Your task to perform on an android device: Go to battery settings Image 0: 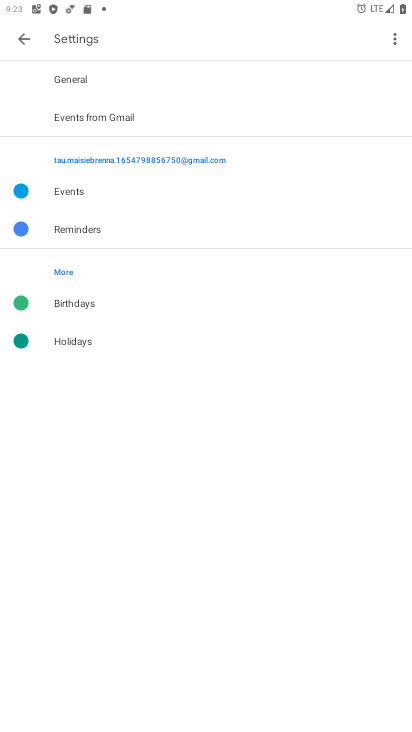
Step 0: press home button
Your task to perform on an android device: Go to battery settings Image 1: 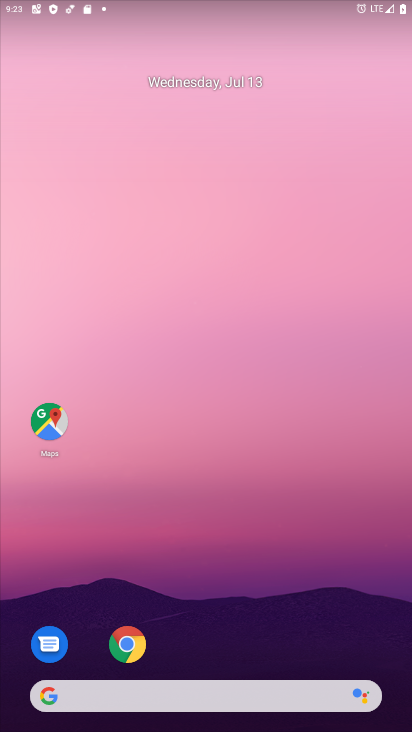
Step 1: press home button
Your task to perform on an android device: Go to battery settings Image 2: 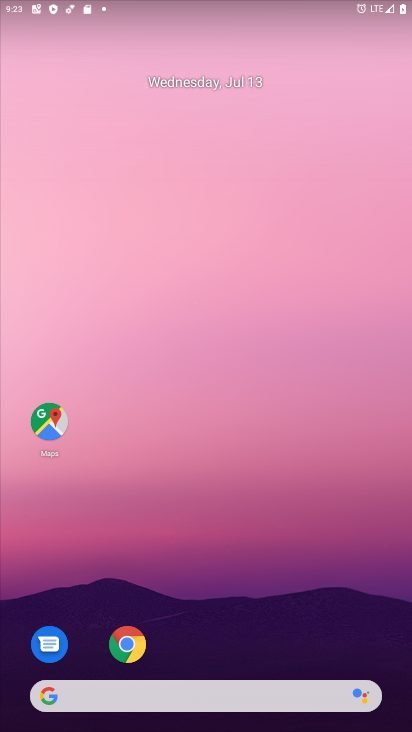
Step 2: drag from (221, 719) to (221, 171)
Your task to perform on an android device: Go to battery settings Image 3: 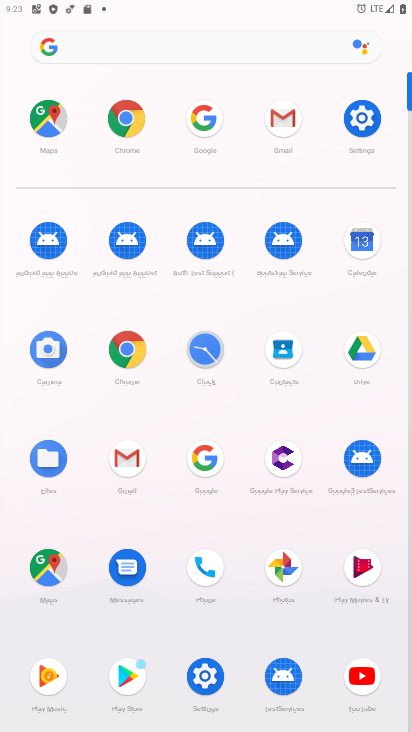
Step 3: click (364, 111)
Your task to perform on an android device: Go to battery settings Image 4: 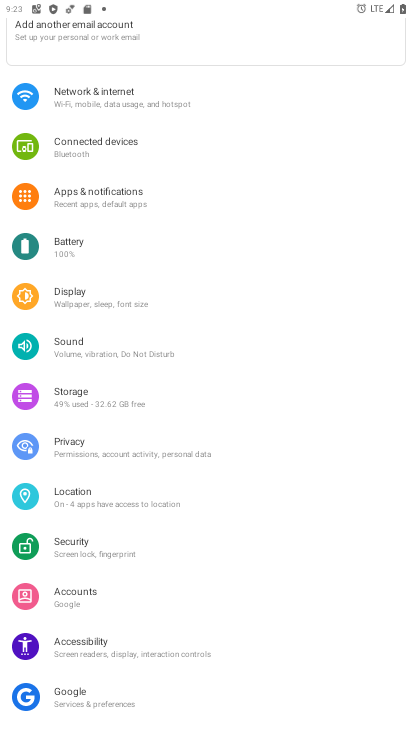
Step 4: click (68, 238)
Your task to perform on an android device: Go to battery settings Image 5: 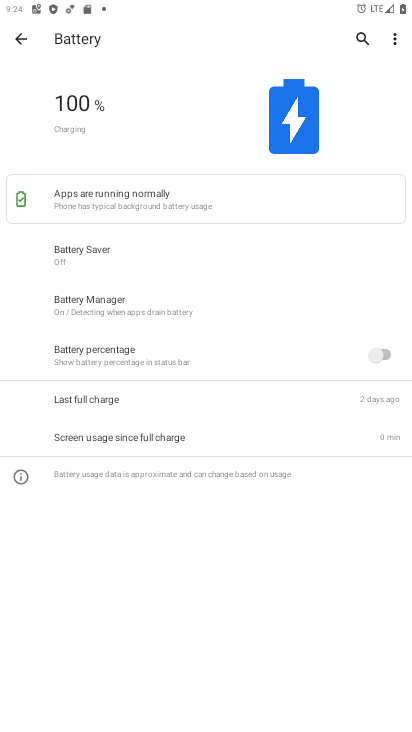
Step 5: task complete